Your task to perform on an android device: open a bookmark in the chrome app Image 0: 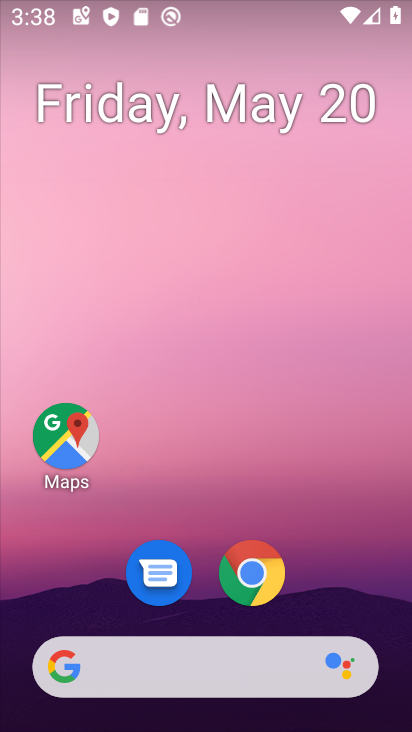
Step 0: click (253, 574)
Your task to perform on an android device: open a bookmark in the chrome app Image 1: 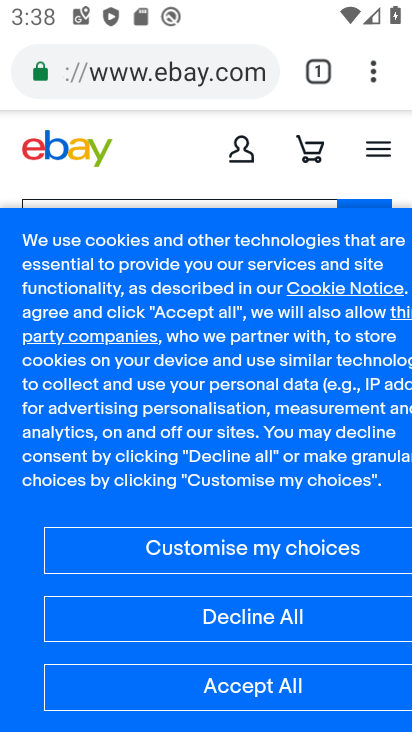
Step 1: click (373, 79)
Your task to perform on an android device: open a bookmark in the chrome app Image 2: 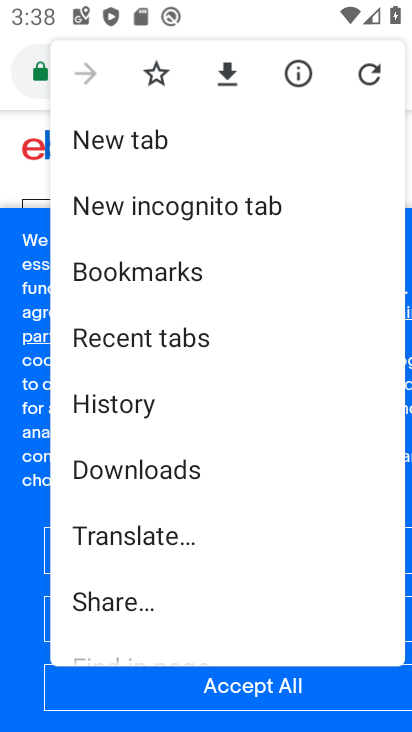
Step 2: click (125, 276)
Your task to perform on an android device: open a bookmark in the chrome app Image 3: 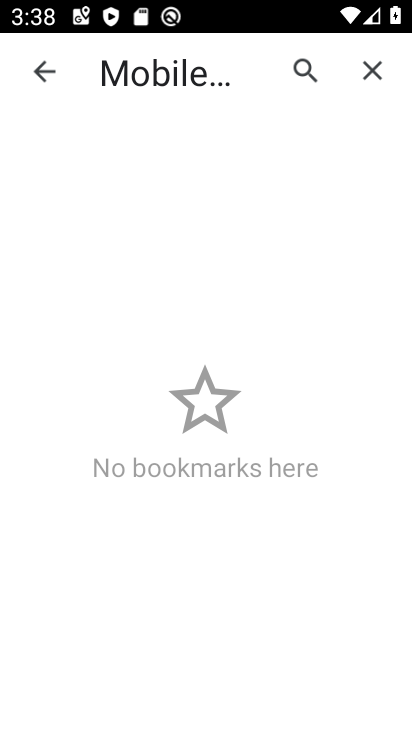
Step 3: task complete